Your task to perform on an android device: see sites visited before in the chrome app Image 0: 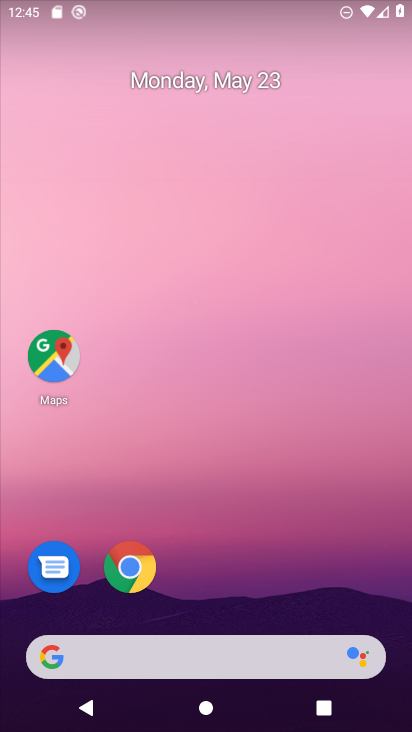
Step 0: click (126, 573)
Your task to perform on an android device: see sites visited before in the chrome app Image 1: 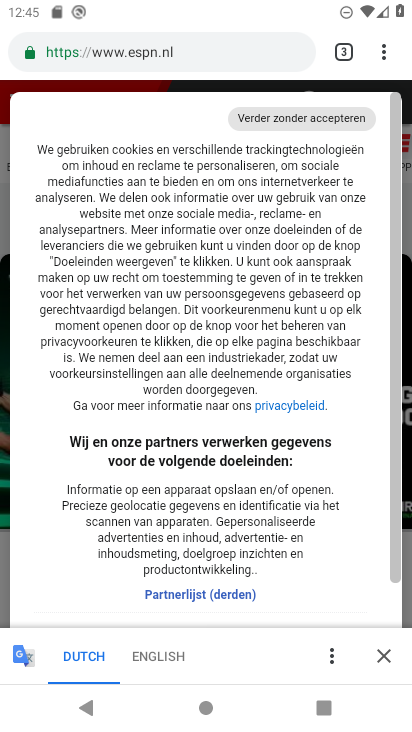
Step 1: click (389, 56)
Your task to perform on an android device: see sites visited before in the chrome app Image 2: 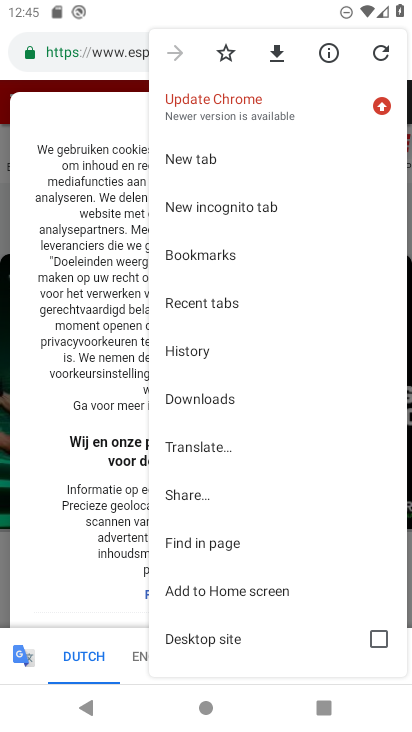
Step 2: click (196, 322)
Your task to perform on an android device: see sites visited before in the chrome app Image 3: 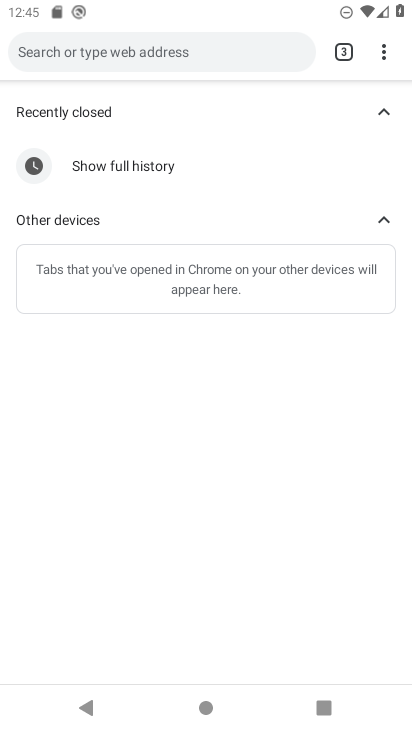
Step 3: task complete